Your task to perform on an android device: Go to Google maps Image 0: 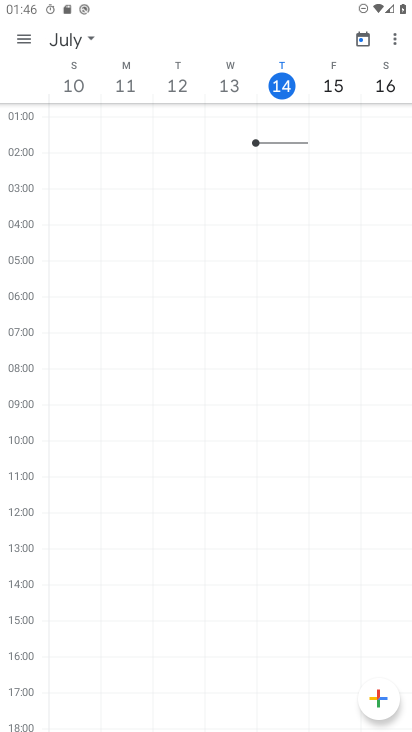
Step 0: press home button
Your task to perform on an android device: Go to Google maps Image 1: 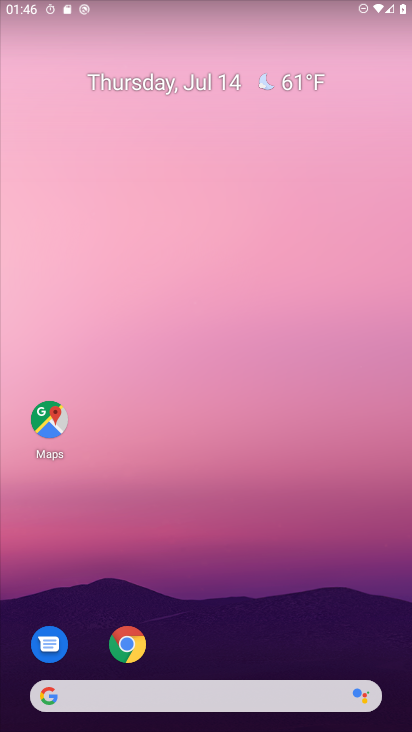
Step 1: drag from (297, 592) to (274, 90)
Your task to perform on an android device: Go to Google maps Image 2: 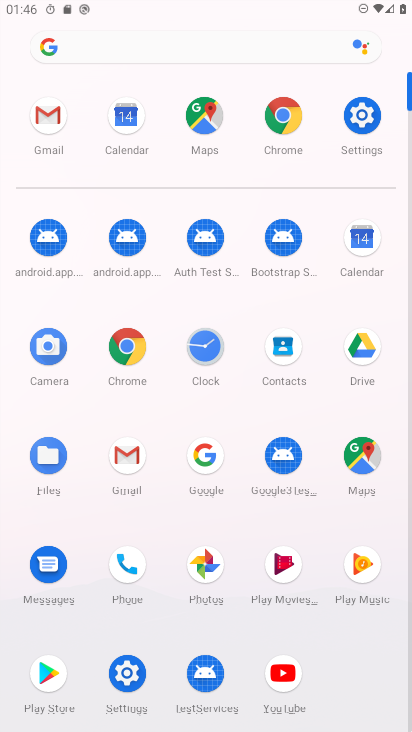
Step 2: click (209, 109)
Your task to perform on an android device: Go to Google maps Image 3: 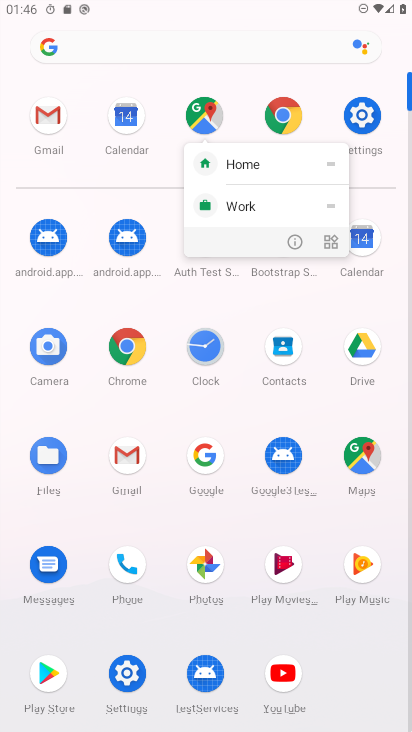
Step 3: click (374, 629)
Your task to perform on an android device: Go to Google maps Image 4: 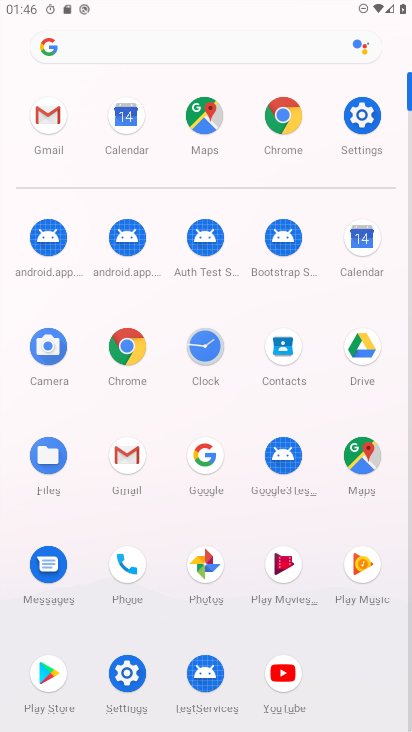
Step 4: click (354, 447)
Your task to perform on an android device: Go to Google maps Image 5: 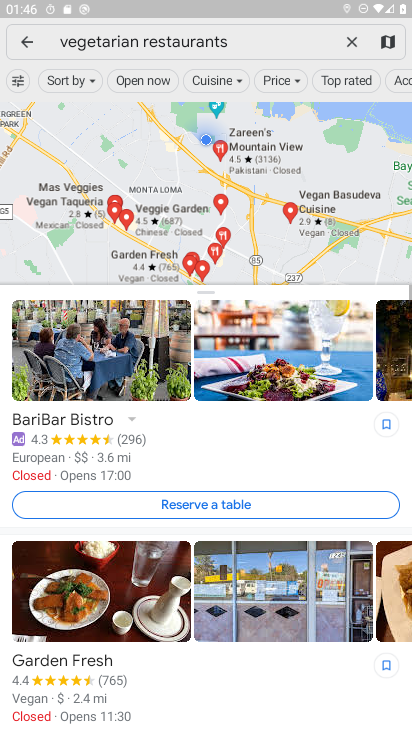
Step 5: task complete